Your task to perform on an android device: Open network settings Image 0: 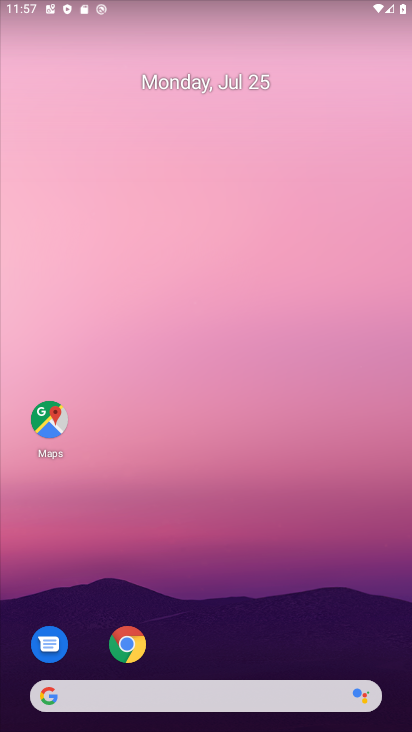
Step 0: drag from (192, 715) to (191, 85)
Your task to perform on an android device: Open network settings Image 1: 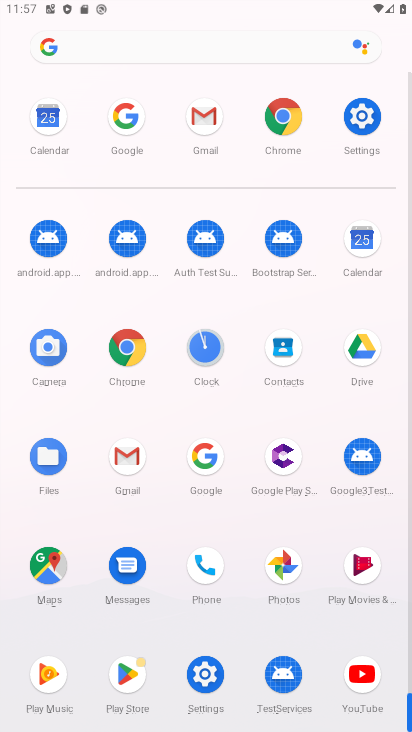
Step 1: click (367, 130)
Your task to perform on an android device: Open network settings Image 2: 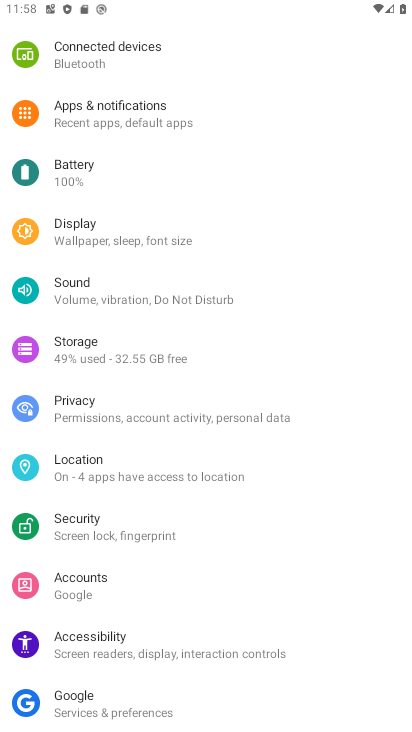
Step 2: drag from (123, 80) to (73, 591)
Your task to perform on an android device: Open network settings Image 3: 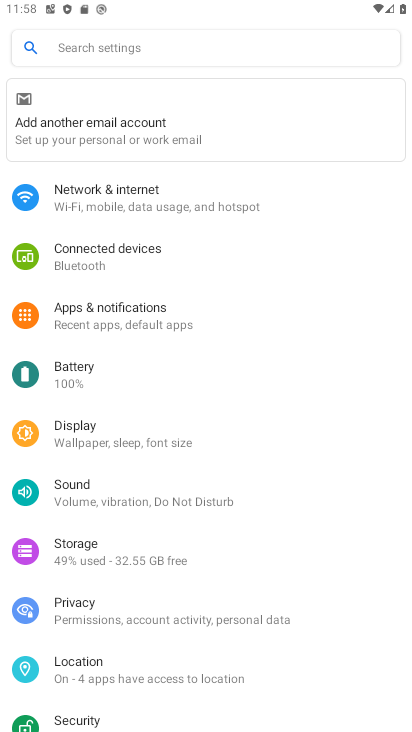
Step 3: click (138, 203)
Your task to perform on an android device: Open network settings Image 4: 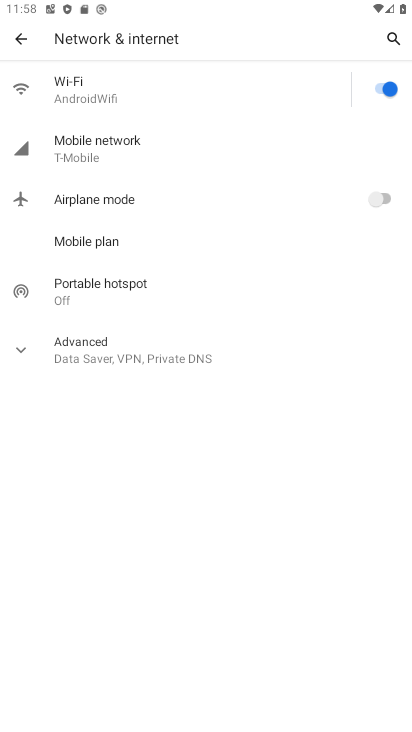
Step 4: click (113, 154)
Your task to perform on an android device: Open network settings Image 5: 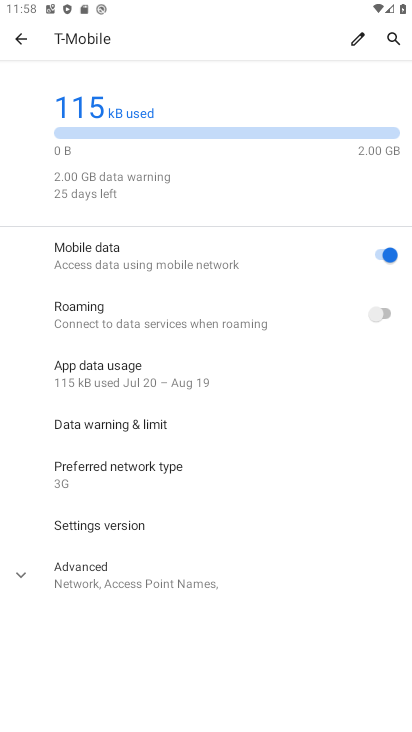
Step 5: task complete